Your task to perform on an android device: Open calendar and show me the second week of next month Image 0: 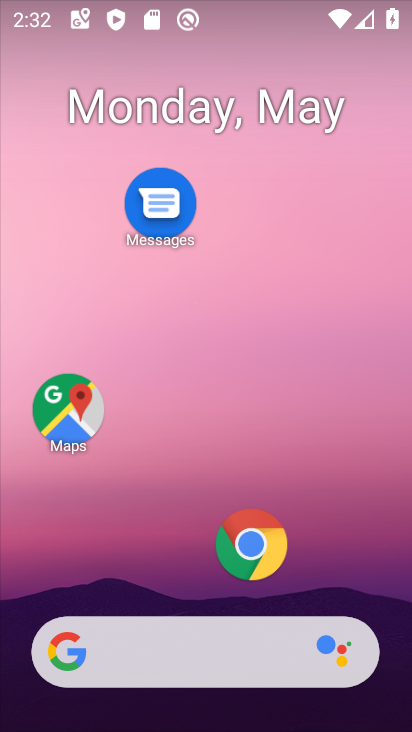
Step 0: drag from (199, 573) to (185, 188)
Your task to perform on an android device: Open calendar and show me the second week of next month Image 1: 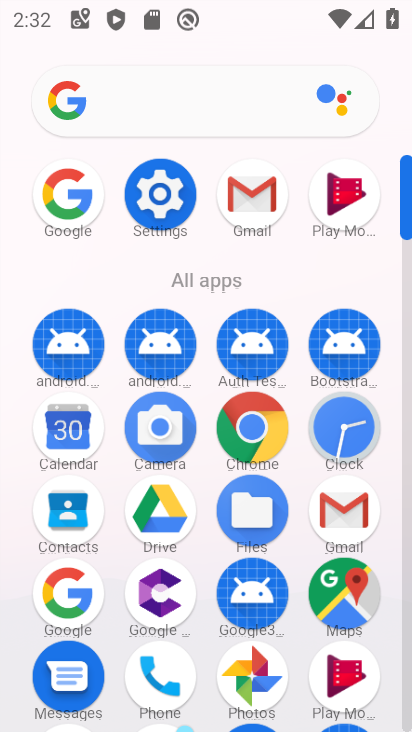
Step 1: click (66, 435)
Your task to perform on an android device: Open calendar and show me the second week of next month Image 2: 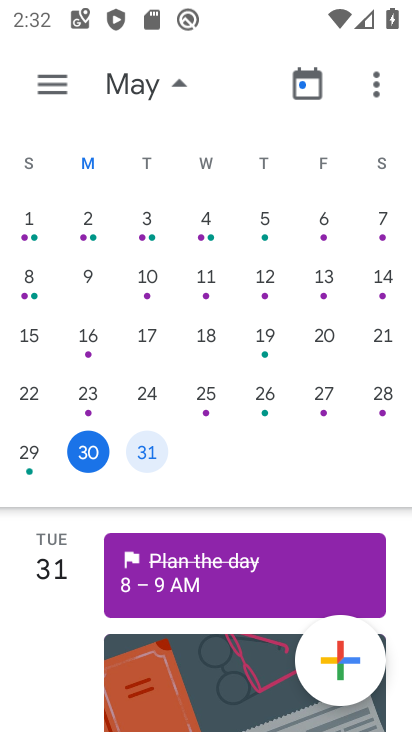
Step 2: drag from (272, 306) to (6, 266)
Your task to perform on an android device: Open calendar and show me the second week of next month Image 3: 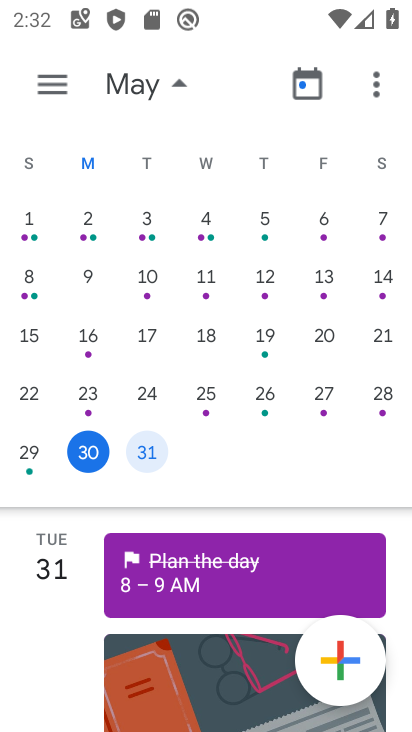
Step 3: drag from (347, 300) to (19, 280)
Your task to perform on an android device: Open calendar and show me the second week of next month Image 4: 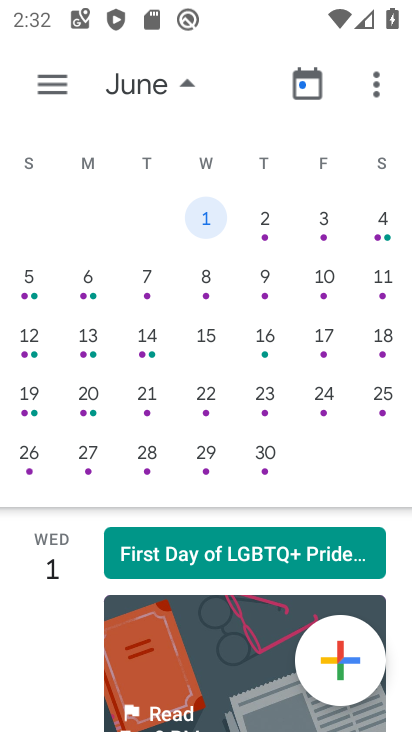
Step 4: click (24, 276)
Your task to perform on an android device: Open calendar and show me the second week of next month Image 5: 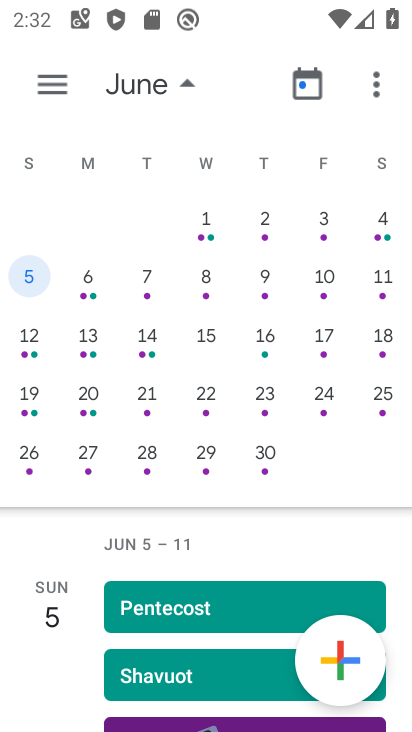
Step 5: task complete